Your task to perform on an android device: open sync settings in chrome Image 0: 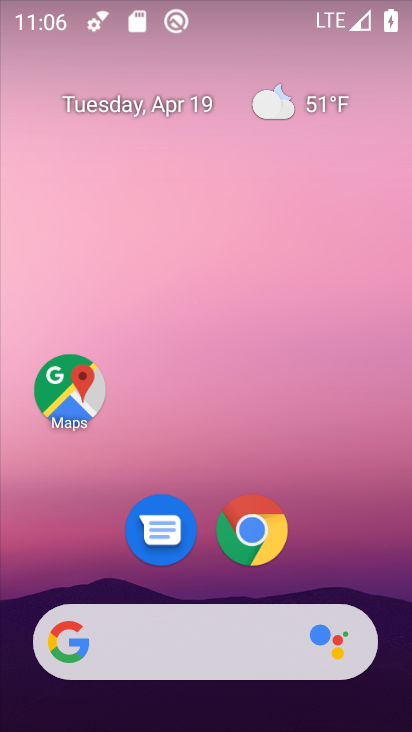
Step 0: drag from (259, 546) to (356, 111)
Your task to perform on an android device: open sync settings in chrome Image 1: 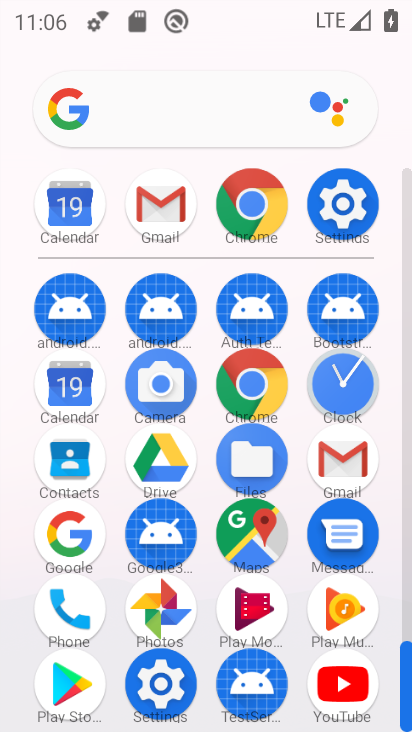
Step 1: click (258, 219)
Your task to perform on an android device: open sync settings in chrome Image 2: 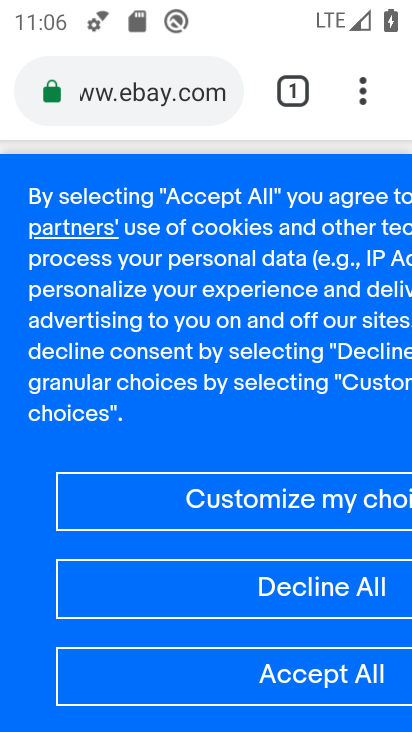
Step 2: click (360, 100)
Your task to perform on an android device: open sync settings in chrome Image 3: 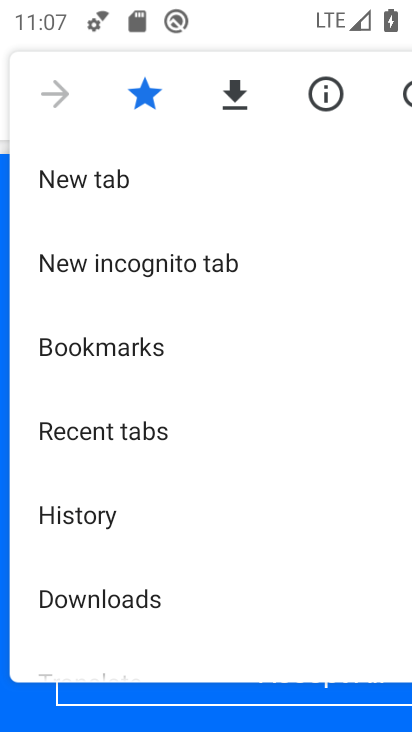
Step 3: drag from (192, 571) to (328, 122)
Your task to perform on an android device: open sync settings in chrome Image 4: 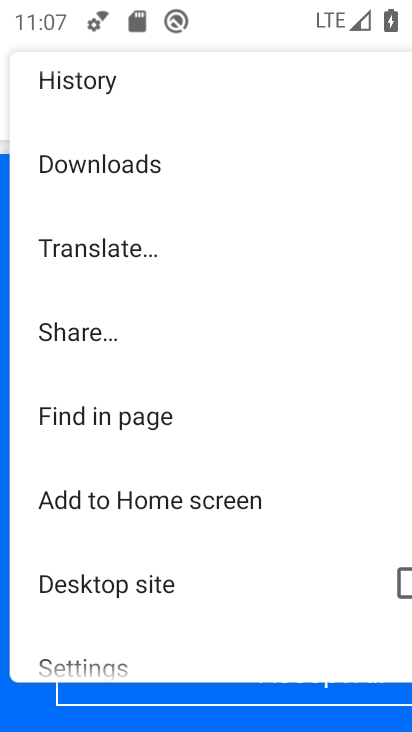
Step 4: drag from (198, 591) to (367, 107)
Your task to perform on an android device: open sync settings in chrome Image 5: 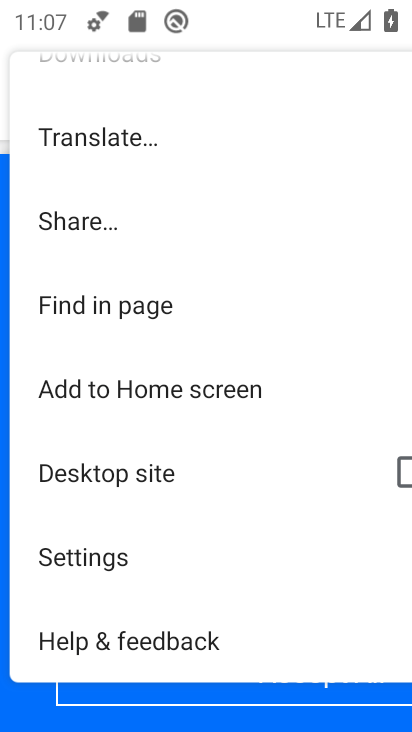
Step 5: click (101, 560)
Your task to perform on an android device: open sync settings in chrome Image 6: 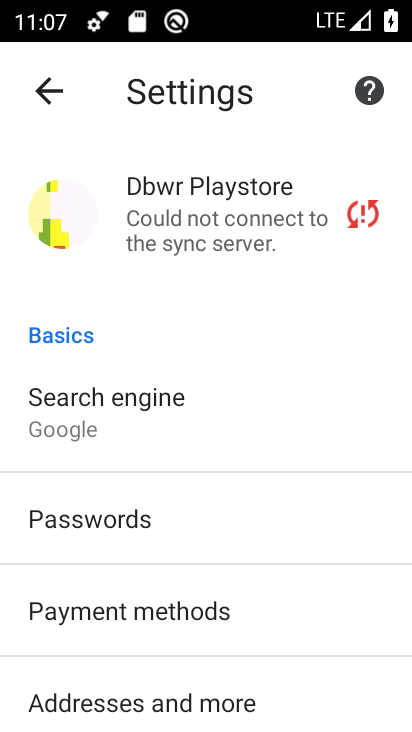
Step 6: click (218, 227)
Your task to perform on an android device: open sync settings in chrome Image 7: 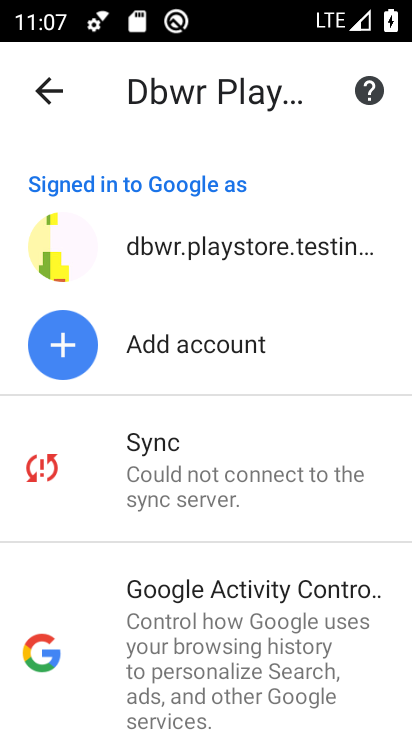
Step 7: click (176, 463)
Your task to perform on an android device: open sync settings in chrome Image 8: 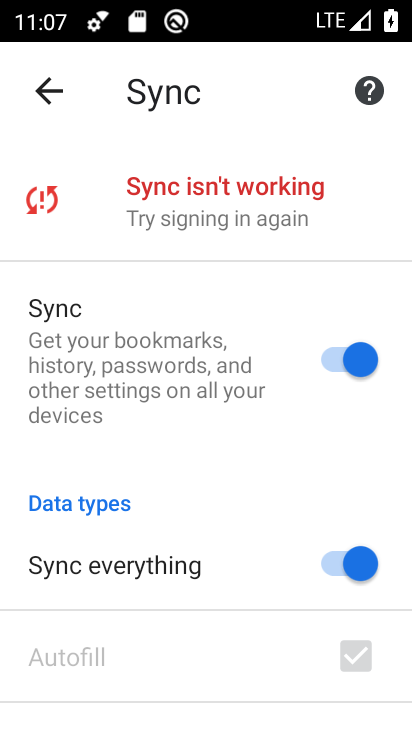
Step 8: task complete